Your task to perform on an android device: clear all cookies in the chrome app Image 0: 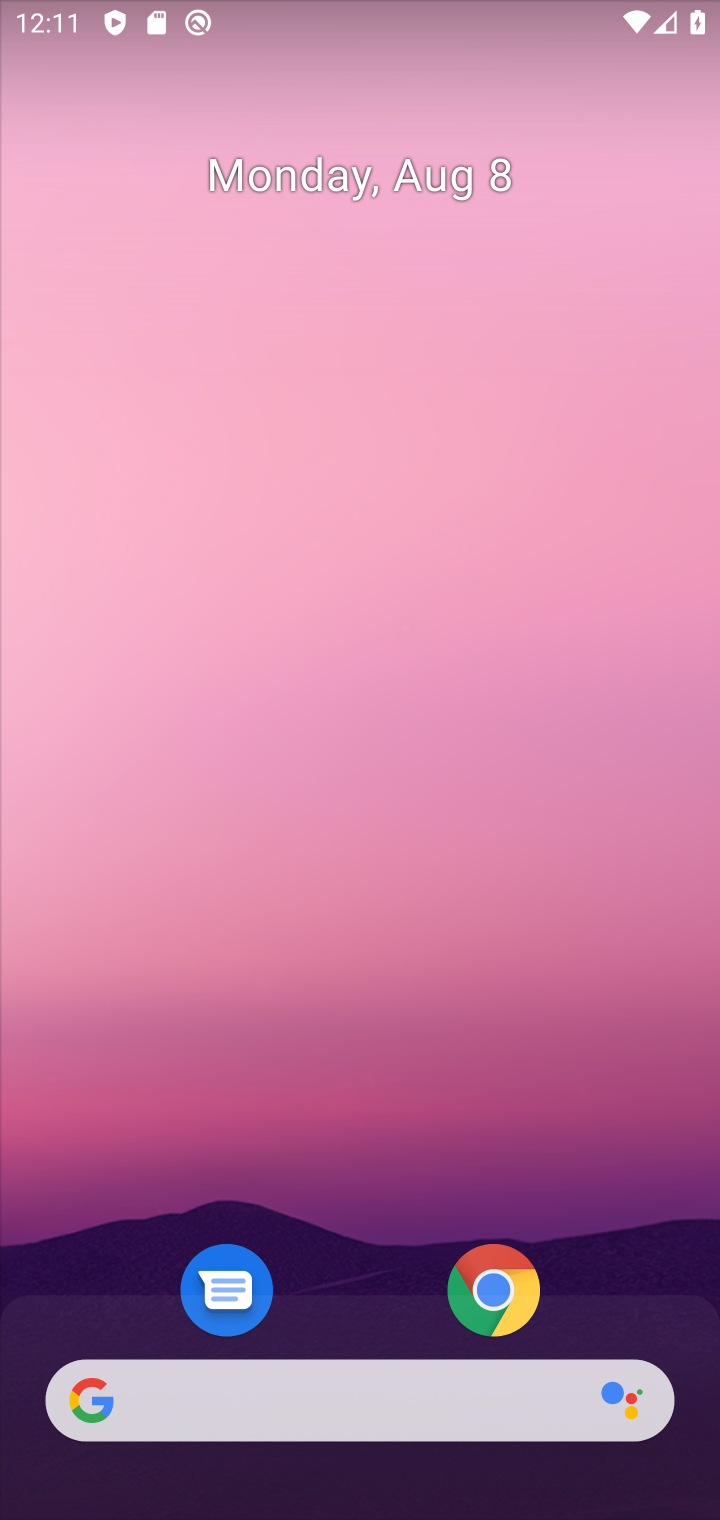
Step 0: click (503, 1285)
Your task to perform on an android device: clear all cookies in the chrome app Image 1: 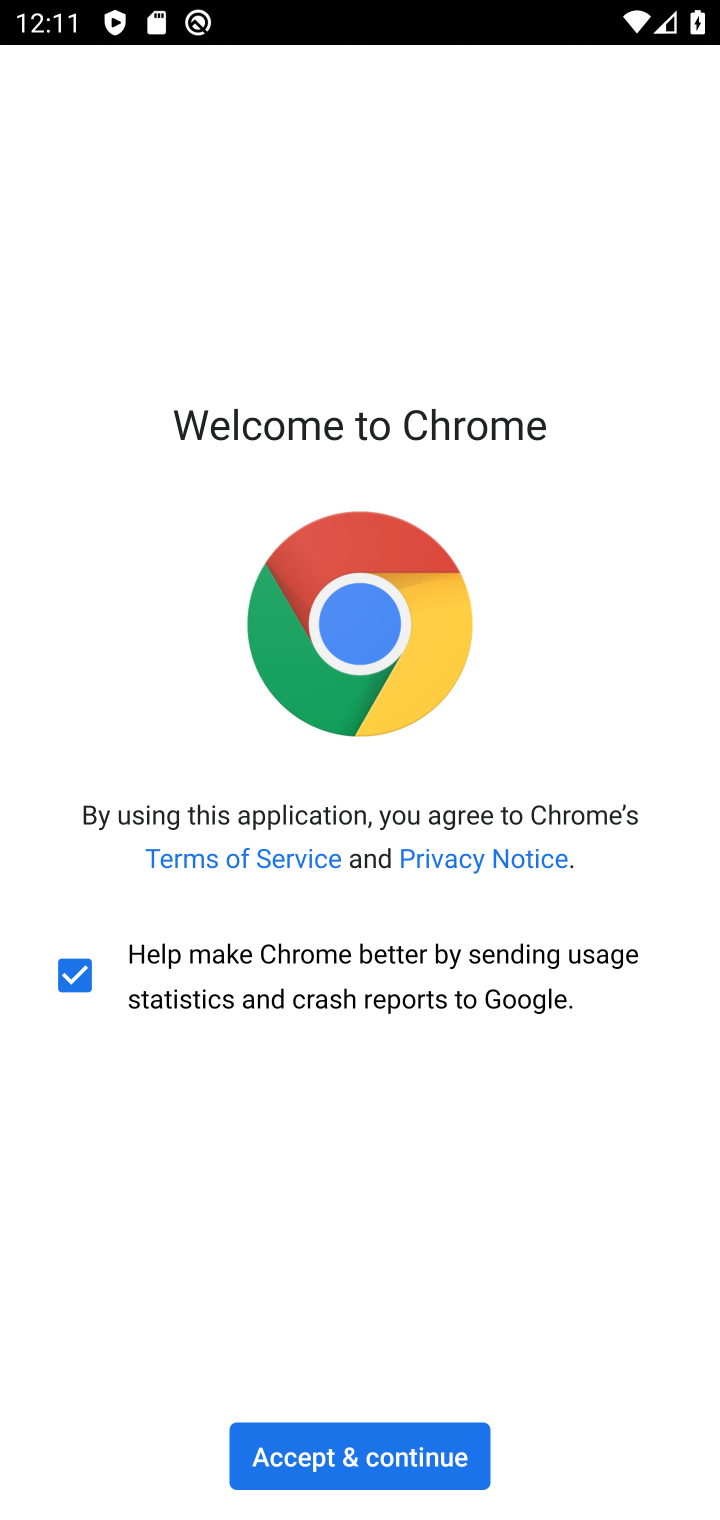
Step 1: click (313, 1452)
Your task to perform on an android device: clear all cookies in the chrome app Image 2: 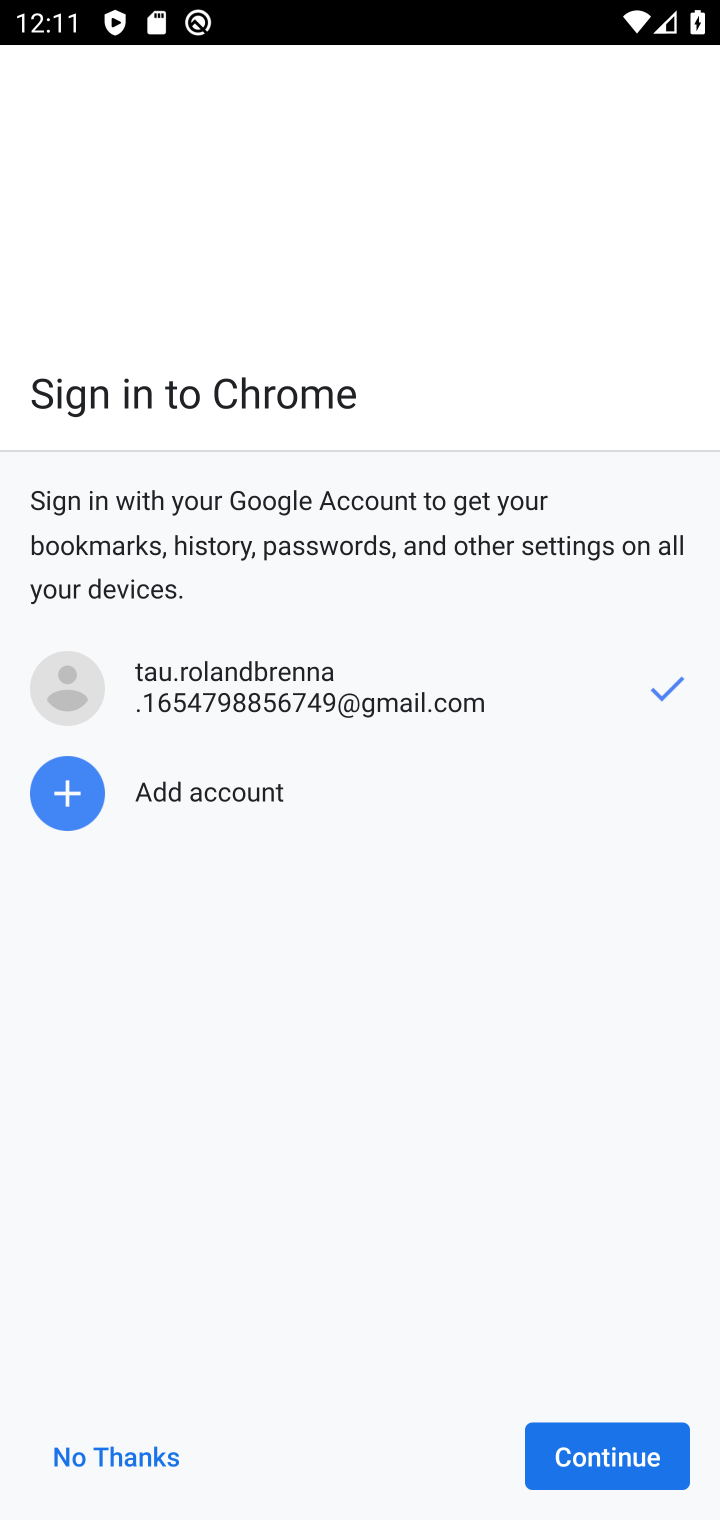
Step 2: click (587, 1452)
Your task to perform on an android device: clear all cookies in the chrome app Image 3: 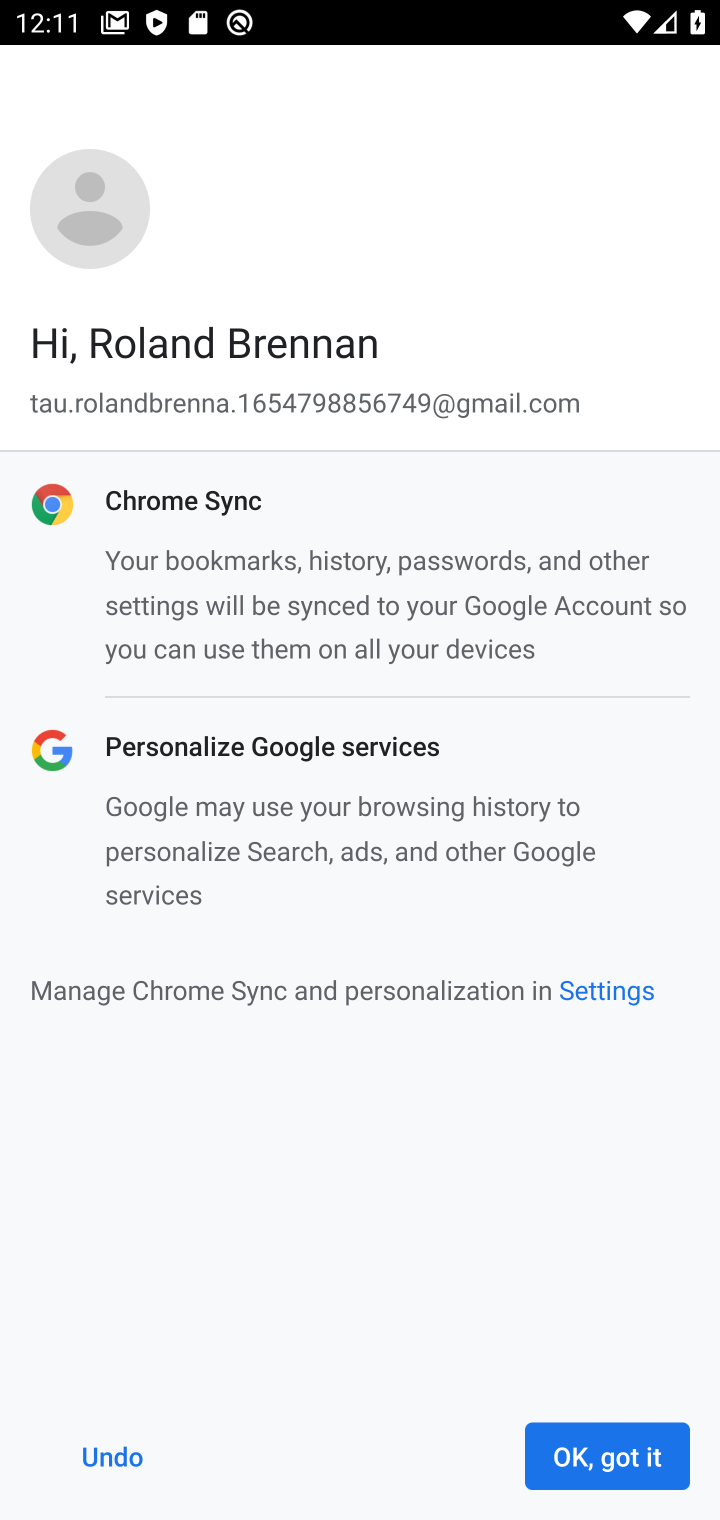
Step 3: click (587, 1452)
Your task to perform on an android device: clear all cookies in the chrome app Image 4: 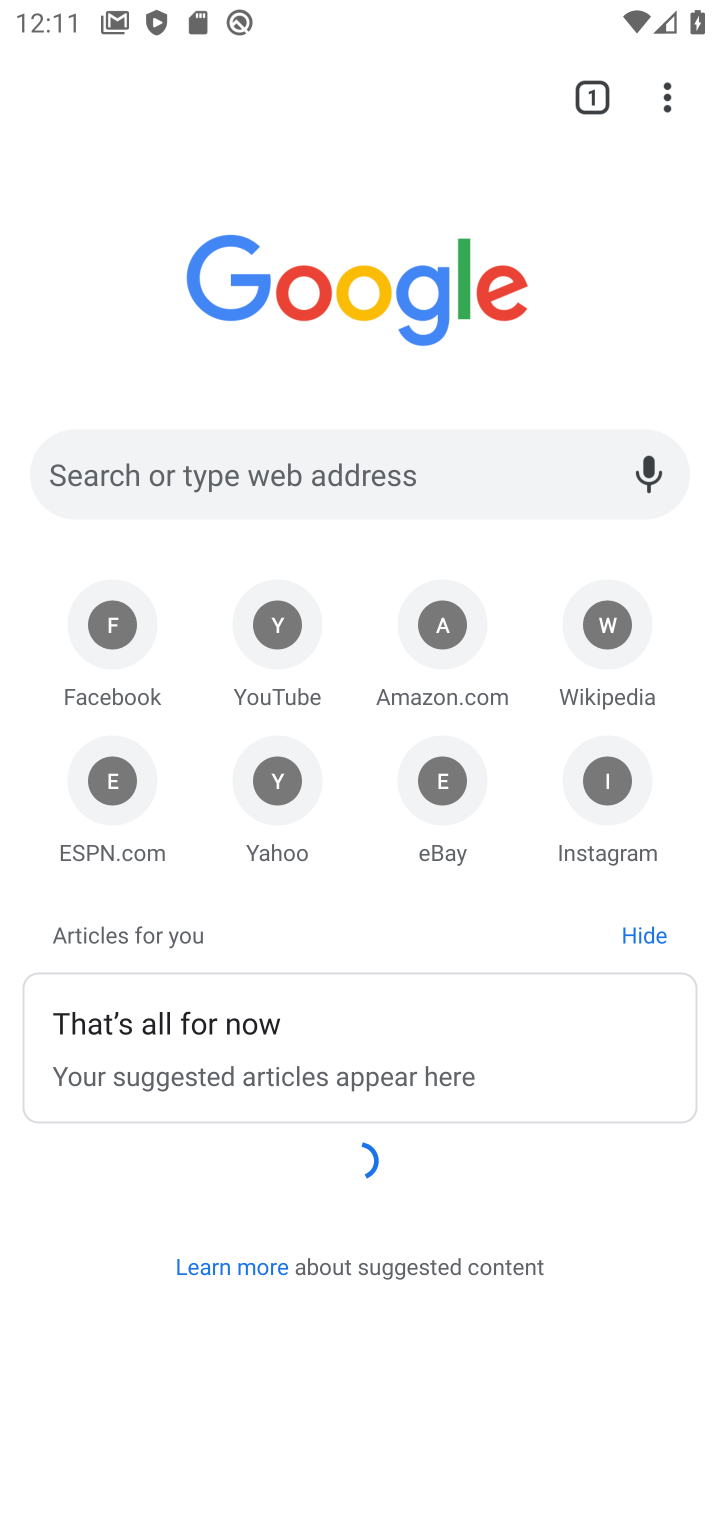
Step 4: click (664, 102)
Your task to perform on an android device: clear all cookies in the chrome app Image 5: 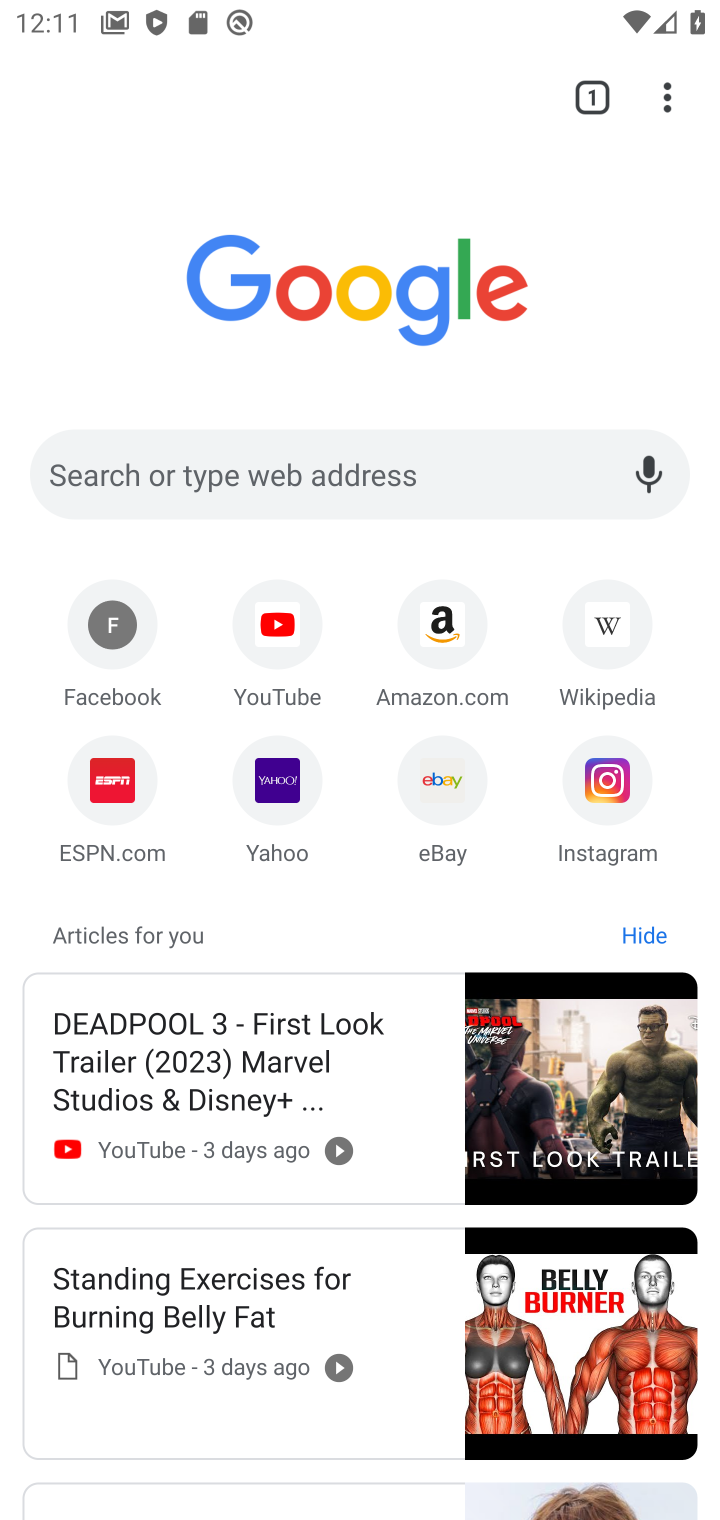
Step 5: click (660, 105)
Your task to perform on an android device: clear all cookies in the chrome app Image 6: 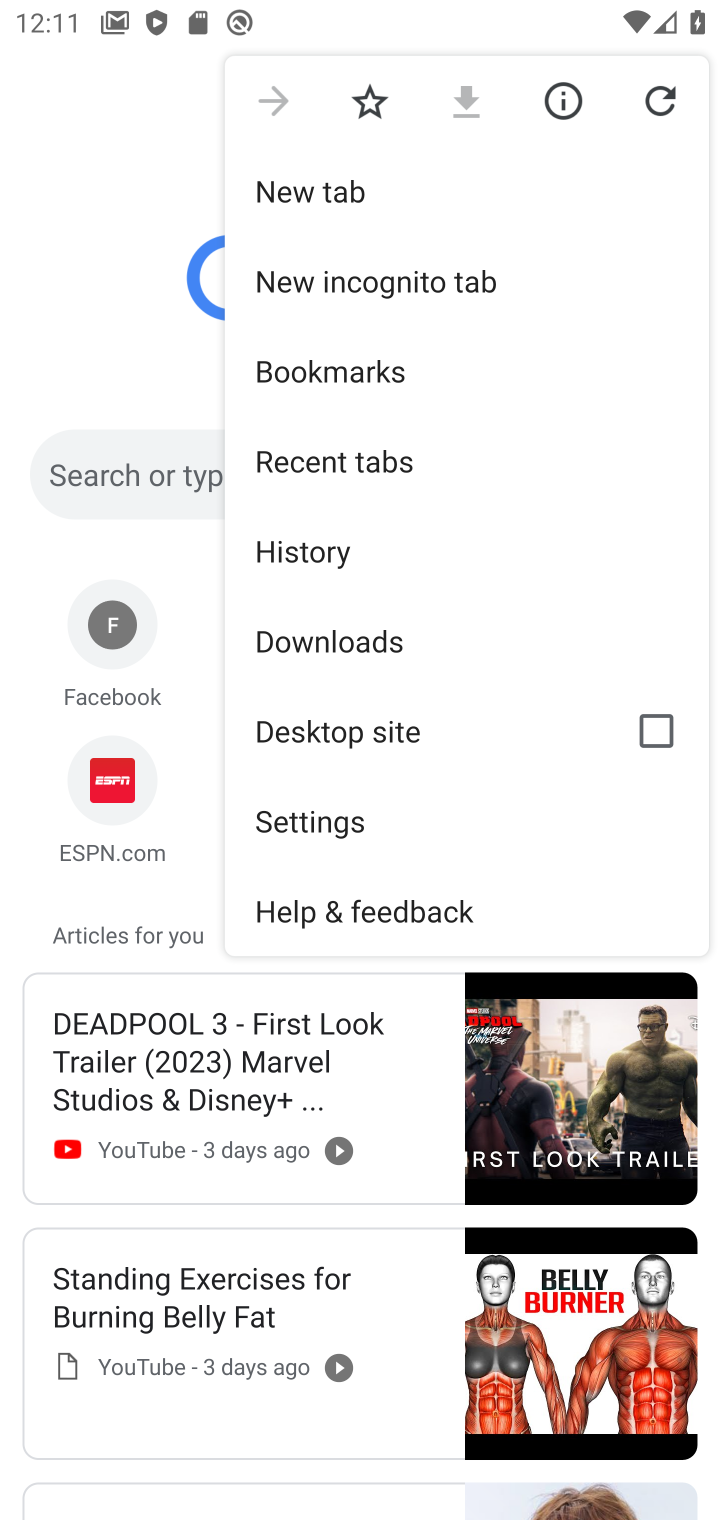
Step 6: click (301, 528)
Your task to perform on an android device: clear all cookies in the chrome app Image 7: 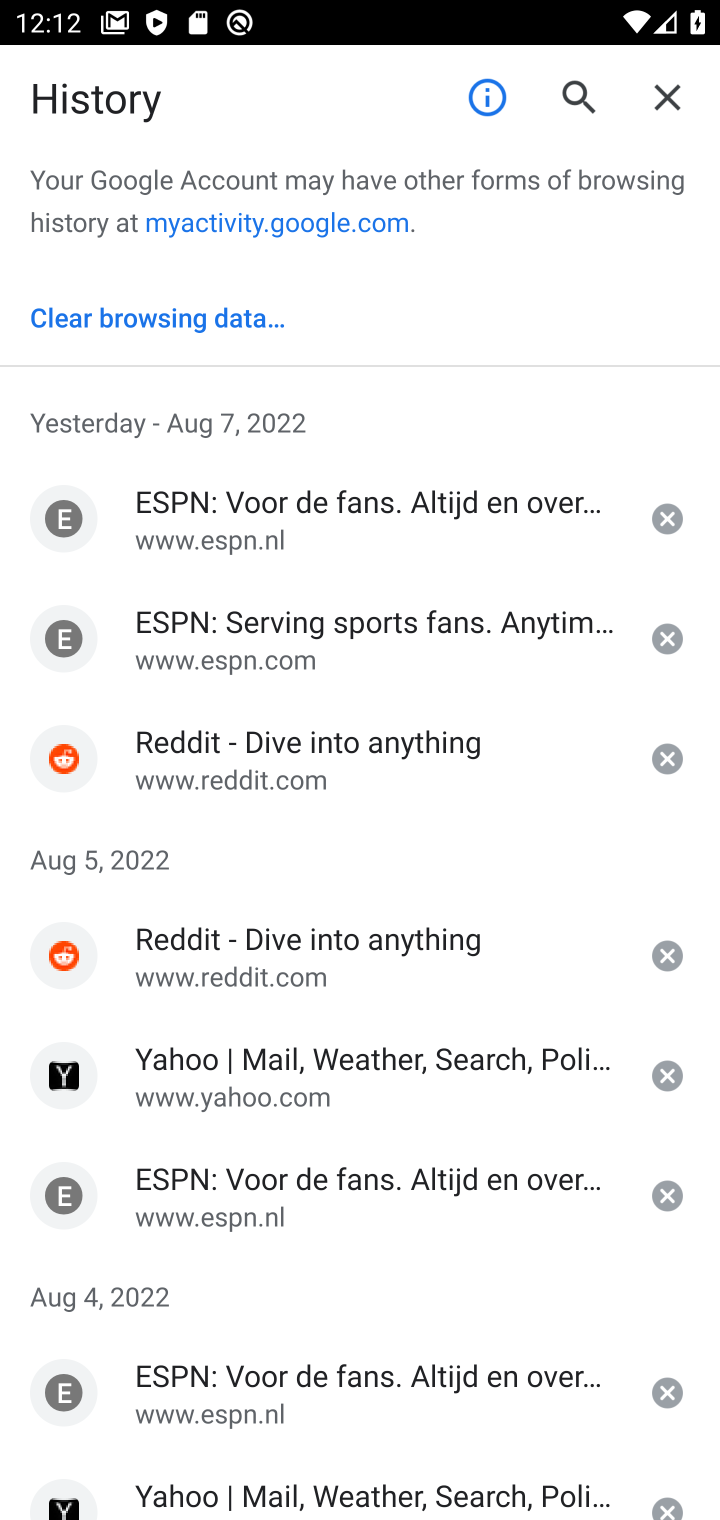
Step 7: click (183, 318)
Your task to perform on an android device: clear all cookies in the chrome app Image 8: 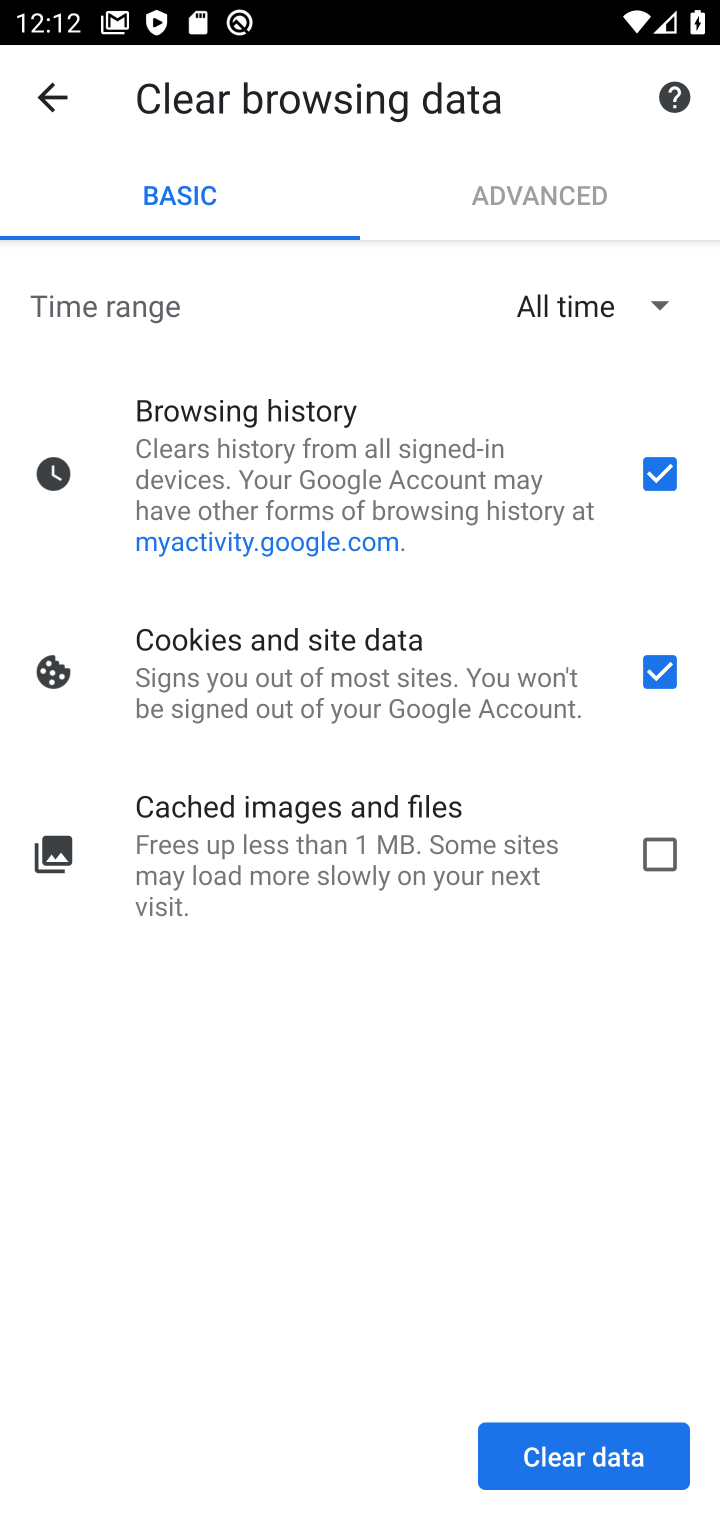
Step 8: click (668, 492)
Your task to perform on an android device: clear all cookies in the chrome app Image 9: 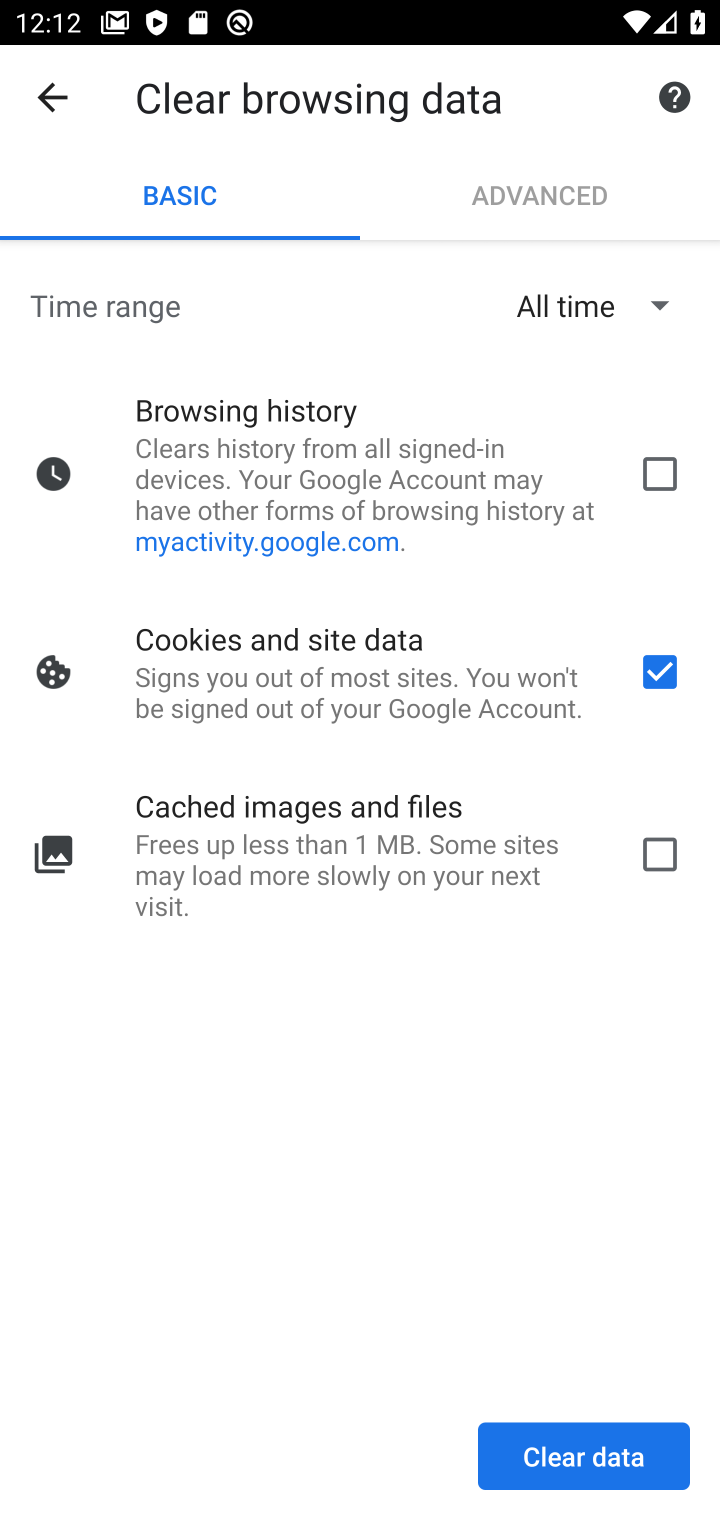
Step 9: click (657, 1455)
Your task to perform on an android device: clear all cookies in the chrome app Image 10: 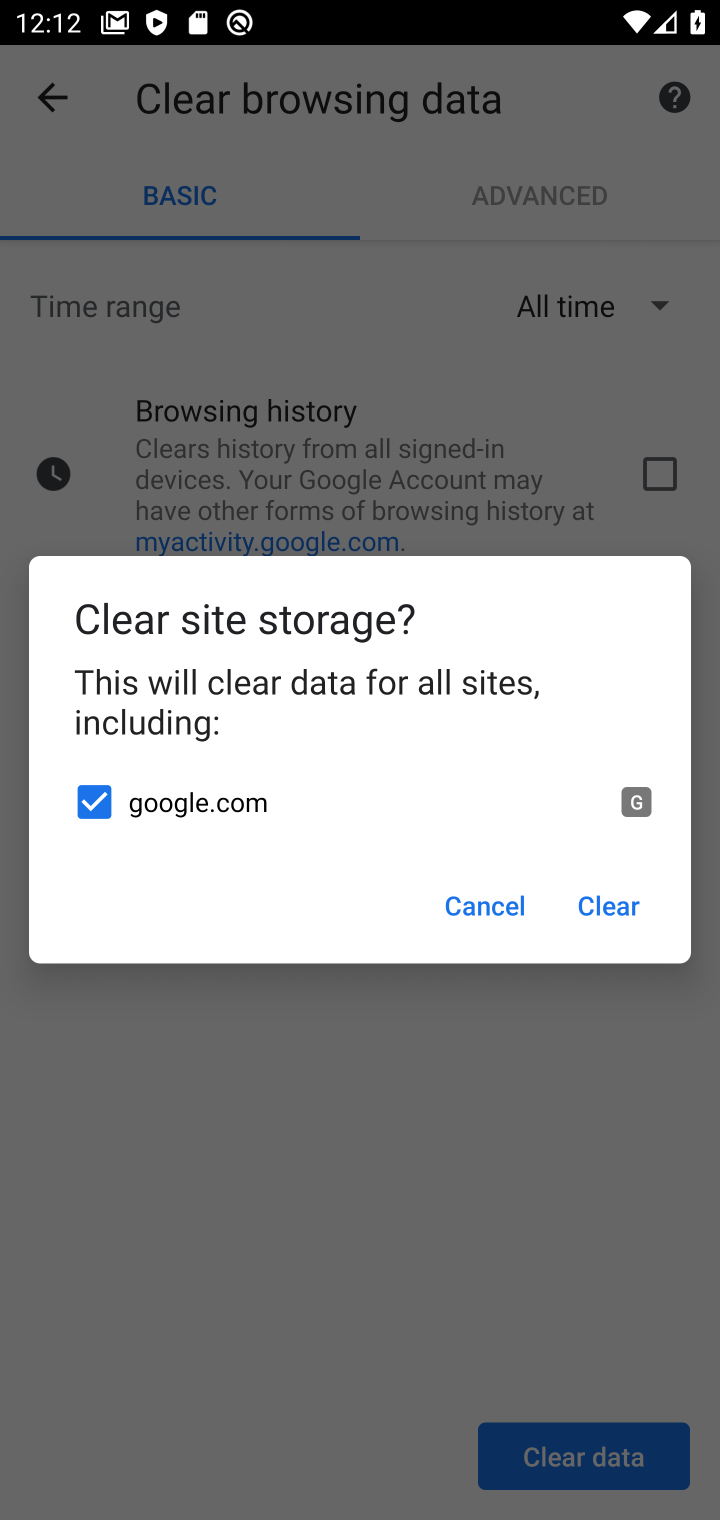
Step 10: click (615, 894)
Your task to perform on an android device: clear all cookies in the chrome app Image 11: 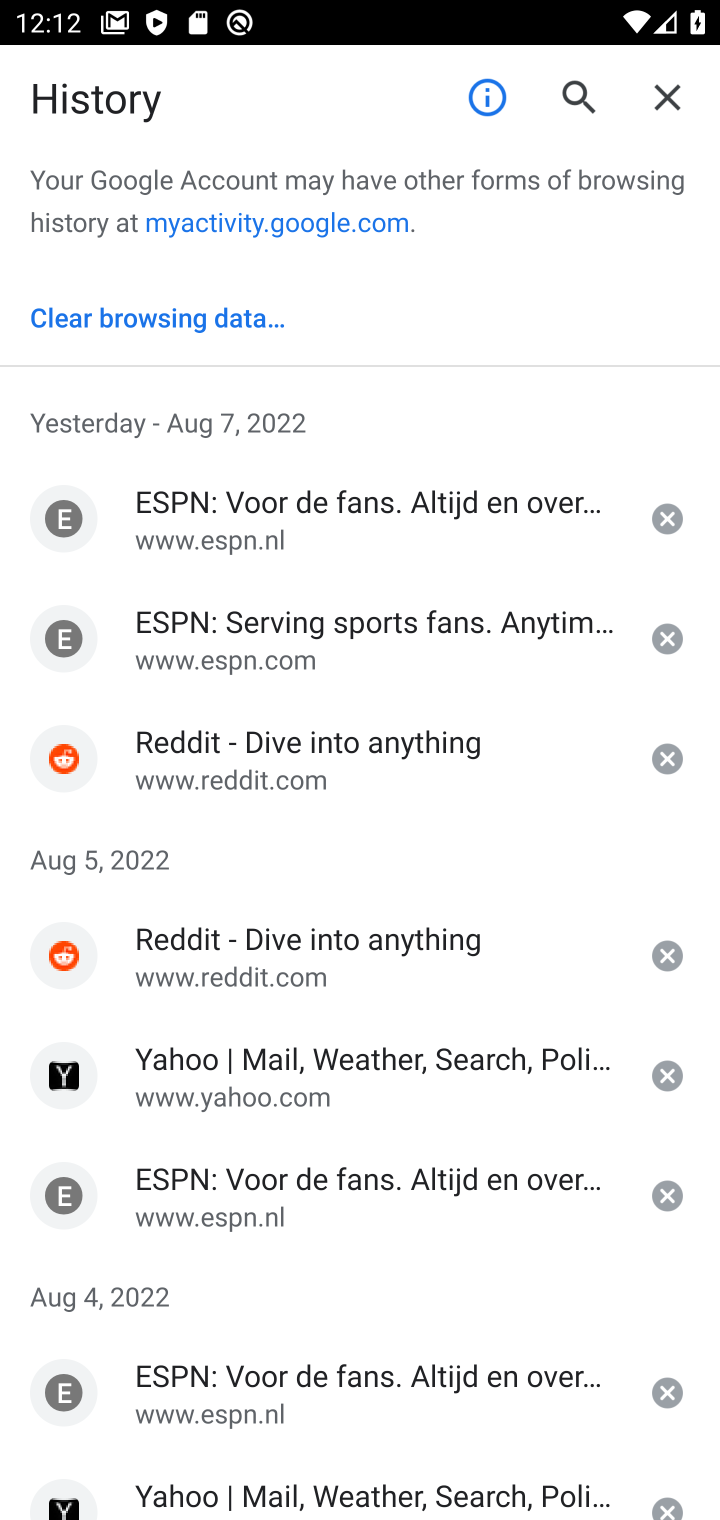
Step 11: task complete